Your task to perform on an android device: When is my next meeting? Image 0: 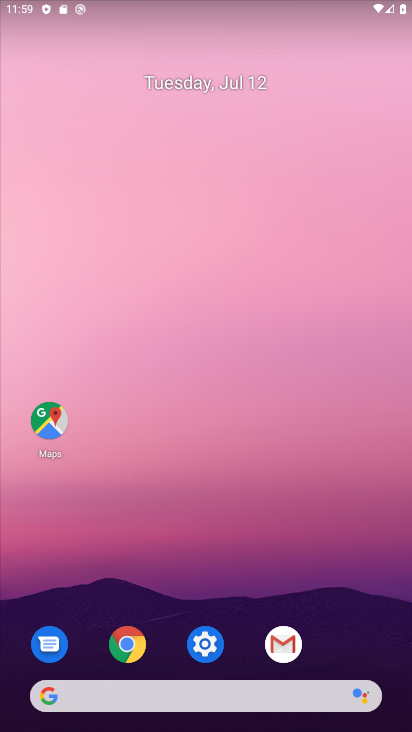
Step 0: drag from (225, 583) to (141, 147)
Your task to perform on an android device: When is my next meeting? Image 1: 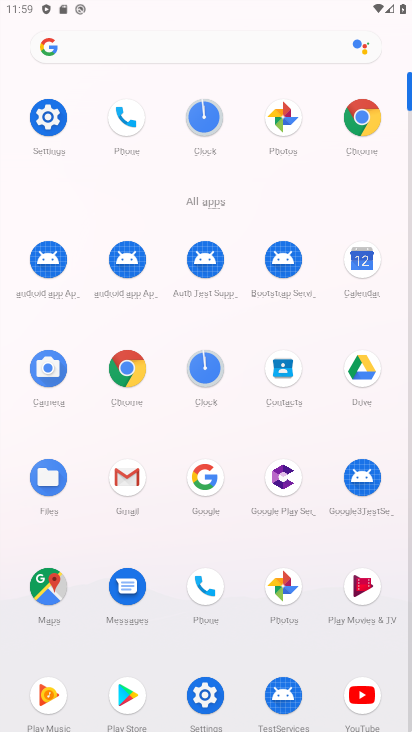
Step 1: click (360, 280)
Your task to perform on an android device: When is my next meeting? Image 2: 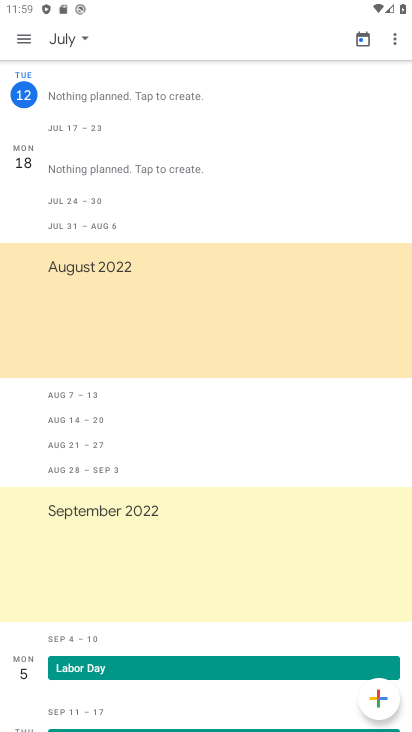
Step 2: click (19, 40)
Your task to perform on an android device: When is my next meeting? Image 3: 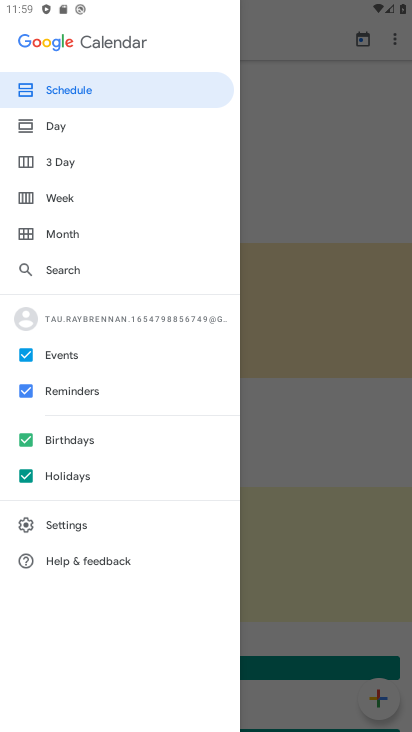
Step 3: click (72, 97)
Your task to perform on an android device: When is my next meeting? Image 4: 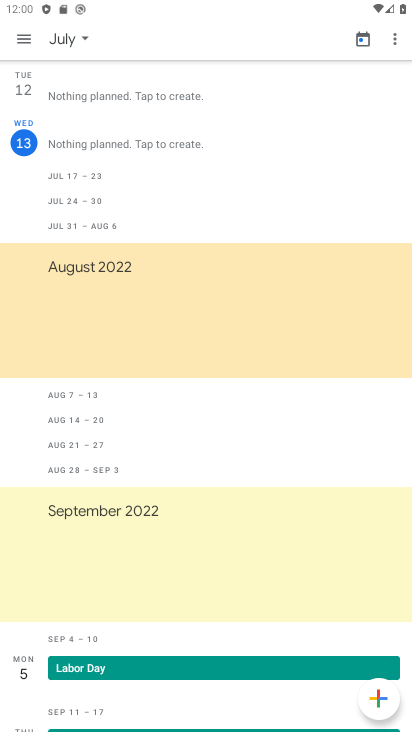
Step 4: task complete